Your task to perform on an android device: Open settings Image 0: 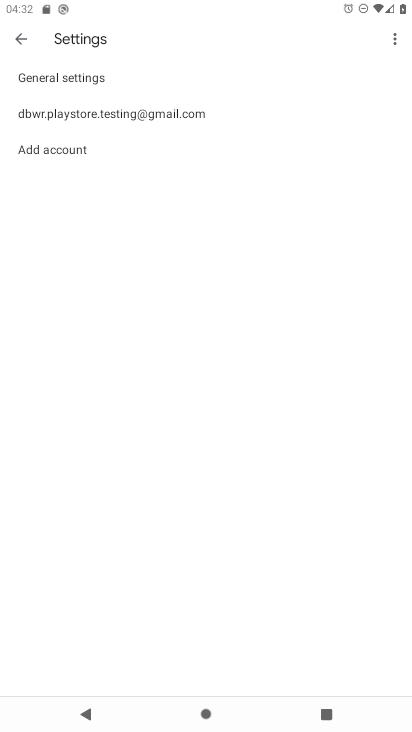
Step 0: press home button
Your task to perform on an android device: Open settings Image 1: 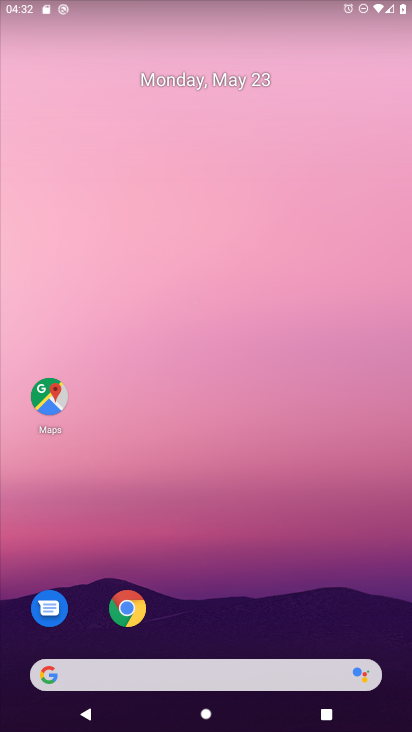
Step 1: drag from (240, 624) to (269, 178)
Your task to perform on an android device: Open settings Image 2: 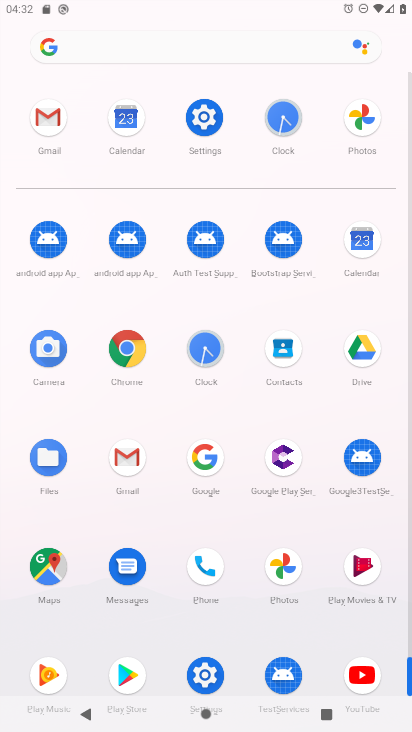
Step 2: click (203, 117)
Your task to perform on an android device: Open settings Image 3: 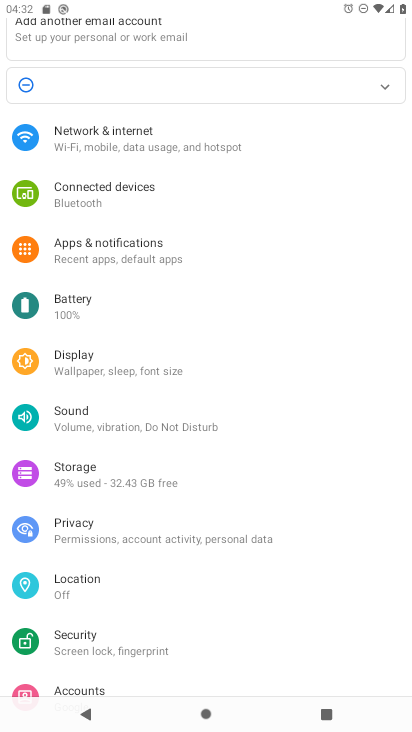
Step 3: task complete